Your task to perform on an android device: Do I have any events this weekend? Image 0: 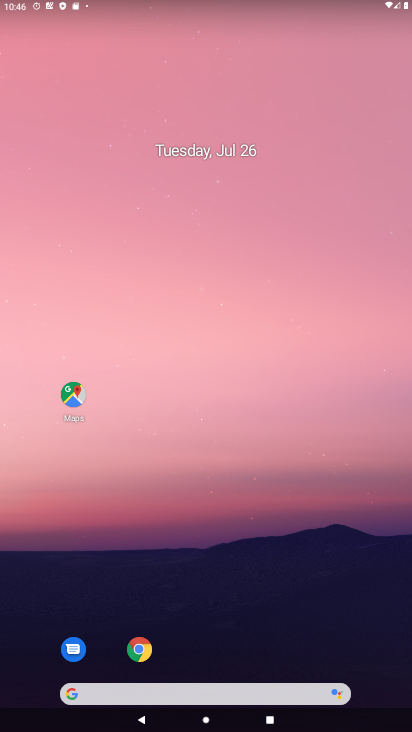
Step 0: drag from (199, 665) to (199, 109)
Your task to perform on an android device: Do I have any events this weekend? Image 1: 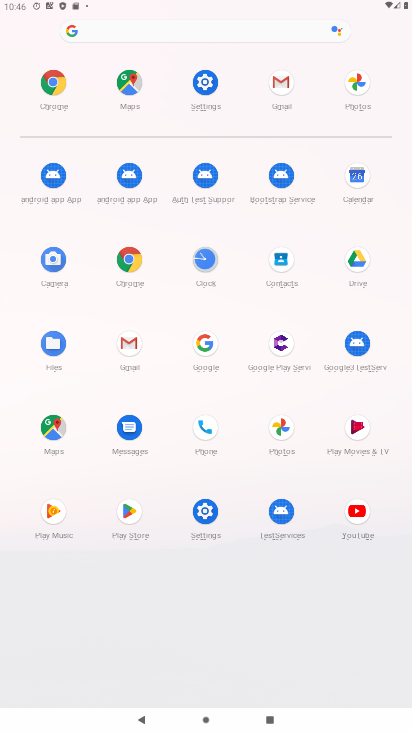
Step 1: click (353, 174)
Your task to perform on an android device: Do I have any events this weekend? Image 2: 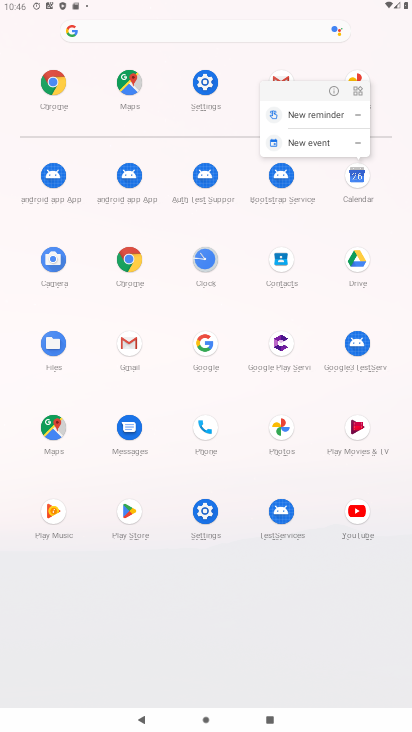
Step 2: click (333, 90)
Your task to perform on an android device: Do I have any events this weekend? Image 3: 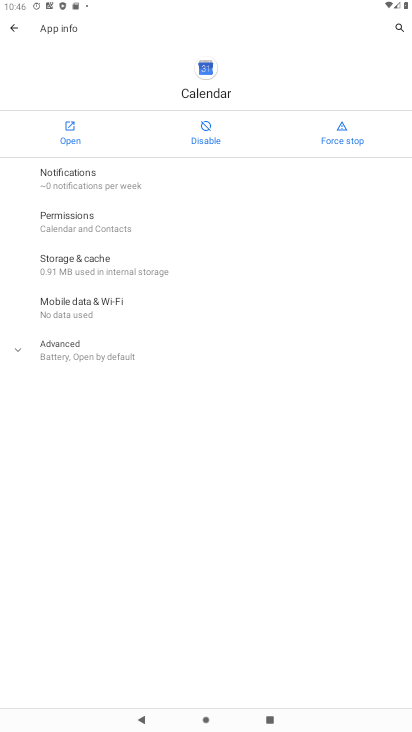
Step 3: click (66, 134)
Your task to perform on an android device: Do I have any events this weekend? Image 4: 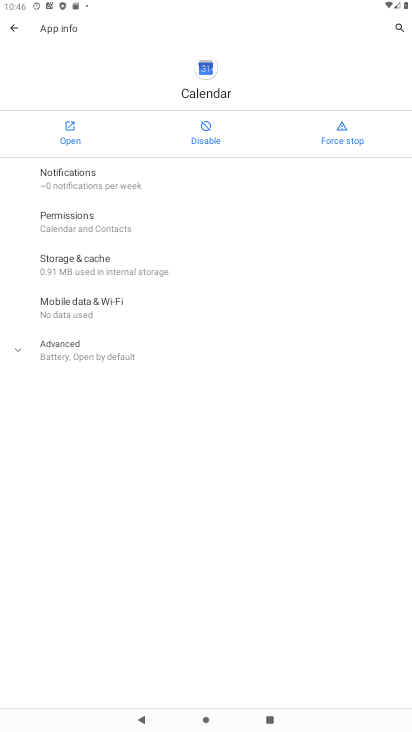
Step 4: click (66, 134)
Your task to perform on an android device: Do I have any events this weekend? Image 5: 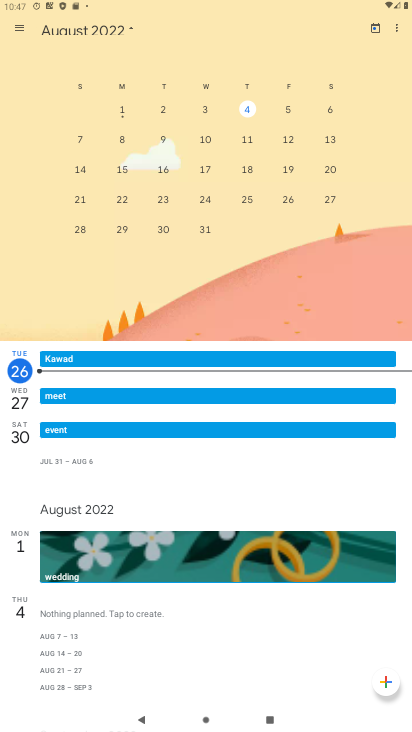
Step 5: drag from (154, 624) to (183, 358)
Your task to perform on an android device: Do I have any events this weekend? Image 6: 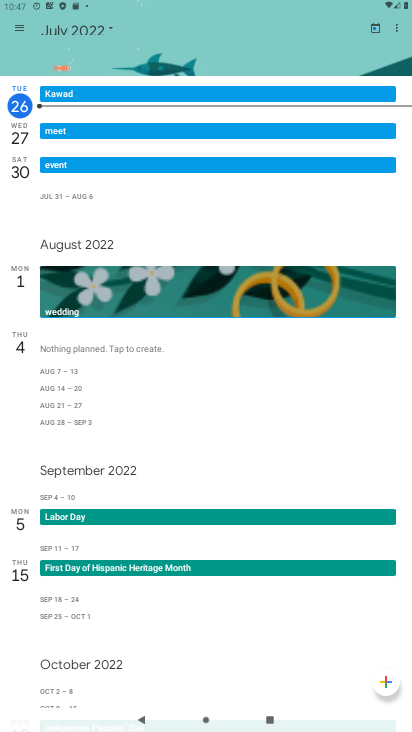
Step 6: click (371, 25)
Your task to perform on an android device: Do I have any events this weekend? Image 7: 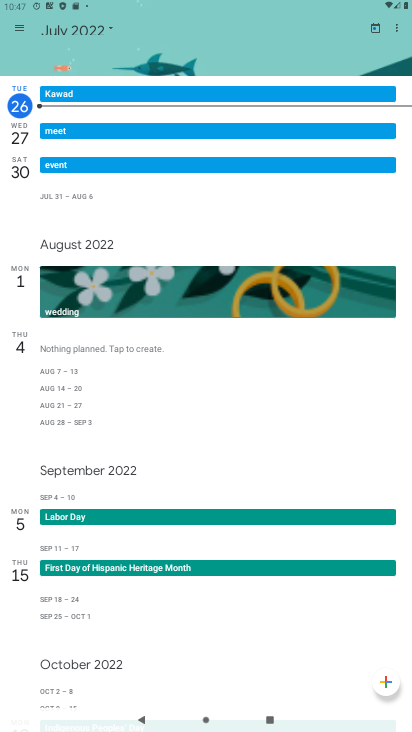
Step 7: click (70, 32)
Your task to perform on an android device: Do I have any events this weekend? Image 8: 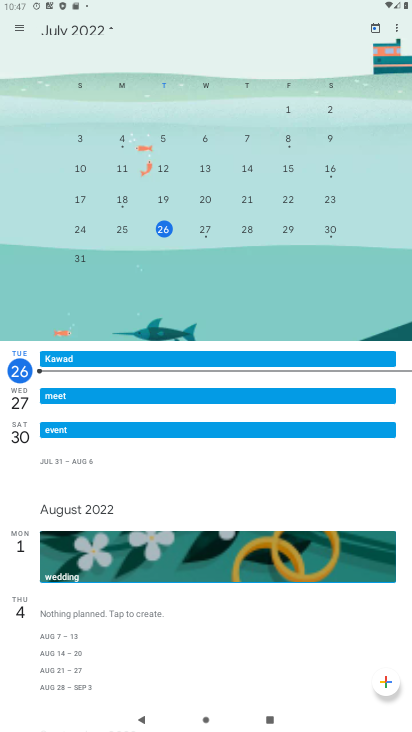
Step 8: click (331, 232)
Your task to perform on an android device: Do I have any events this weekend? Image 9: 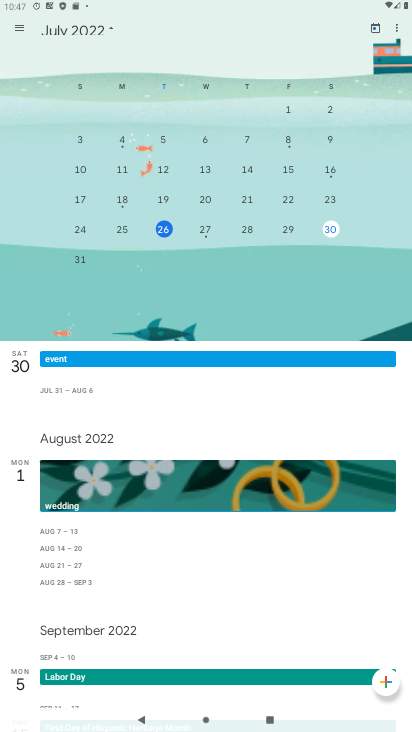
Step 9: task complete